Your task to perform on an android device: Show me popular videos on Youtube Image 0: 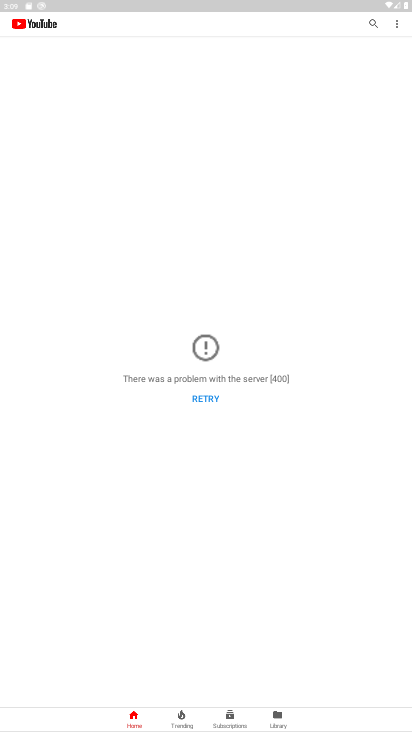
Step 0: click (186, 726)
Your task to perform on an android device: Show me popular videos on Youtube Image 1: 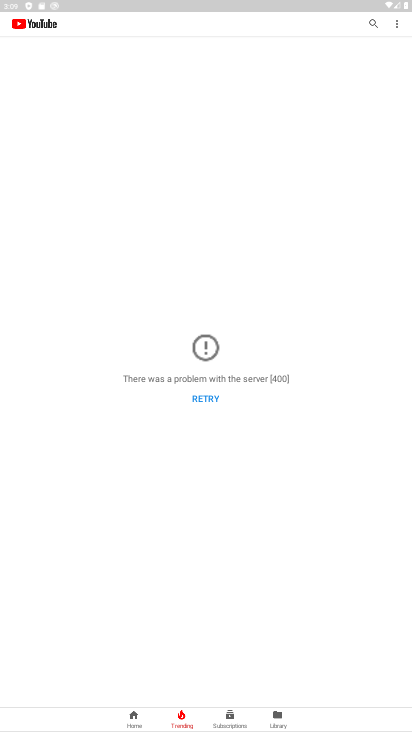
Step 1: task complete